Your task to perform on an android device: open app "Messenger Lite" (install if not already installed) Image 0: 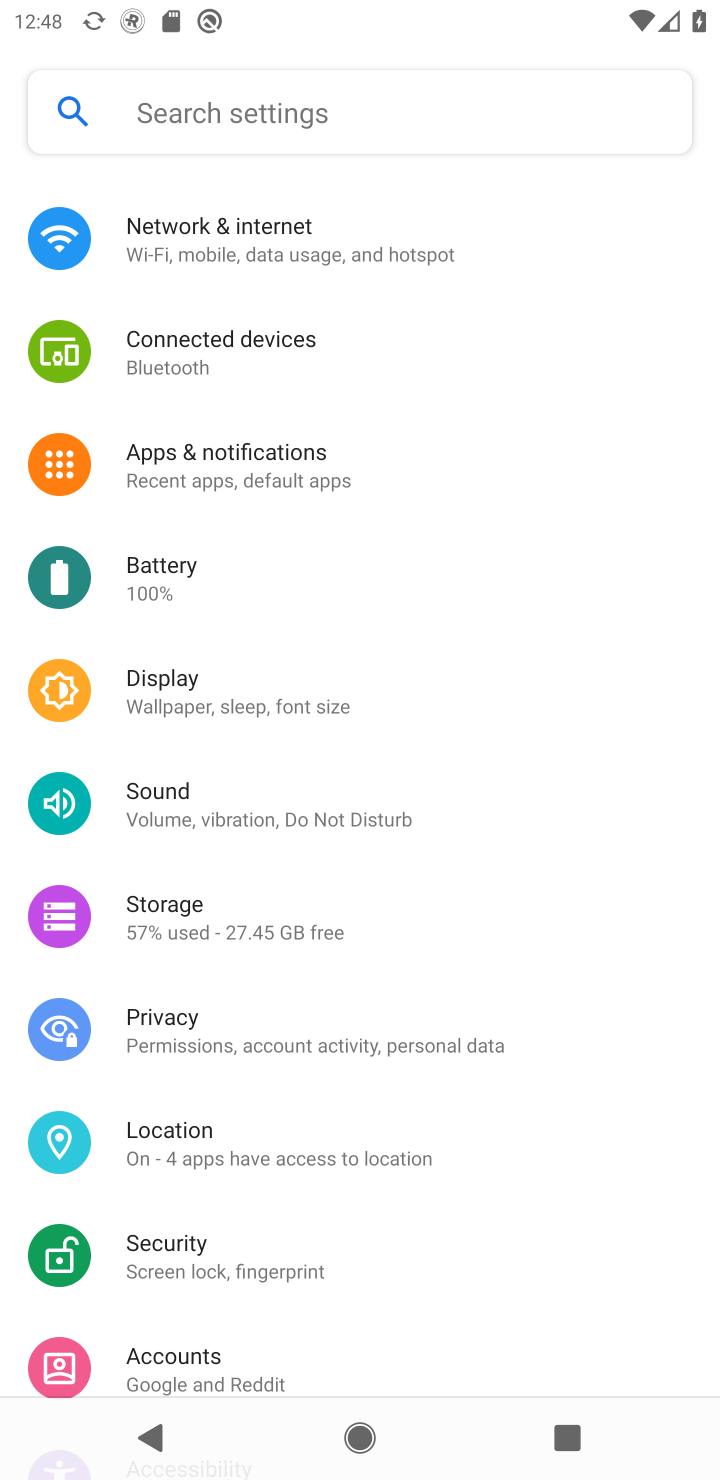
Step 0: press home button
Your task to perform on an android device: open app "Messenger Lite" (install if not already installed) Image 1: 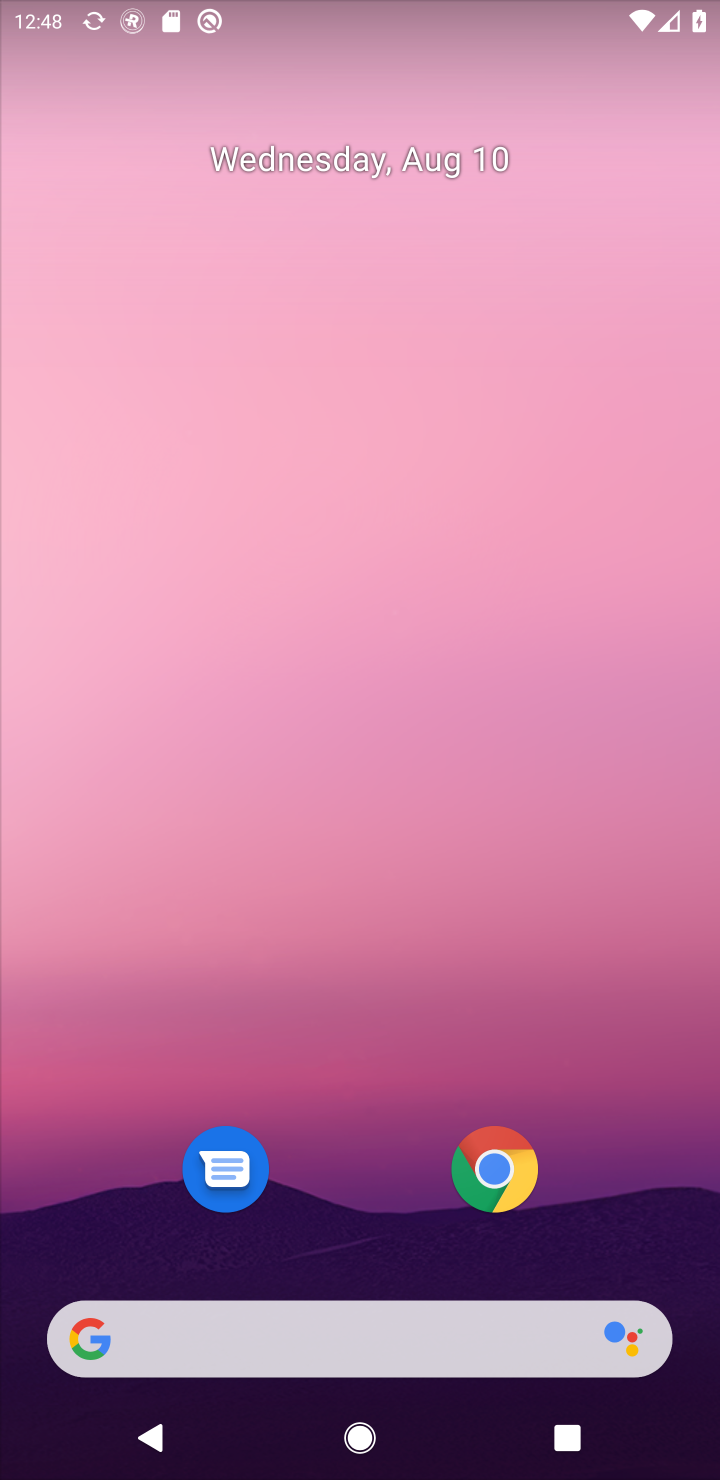
Step 1: press home button
Your task to perform on an android device: open app "Messenger Lite" (install if not already installed) Image 2: 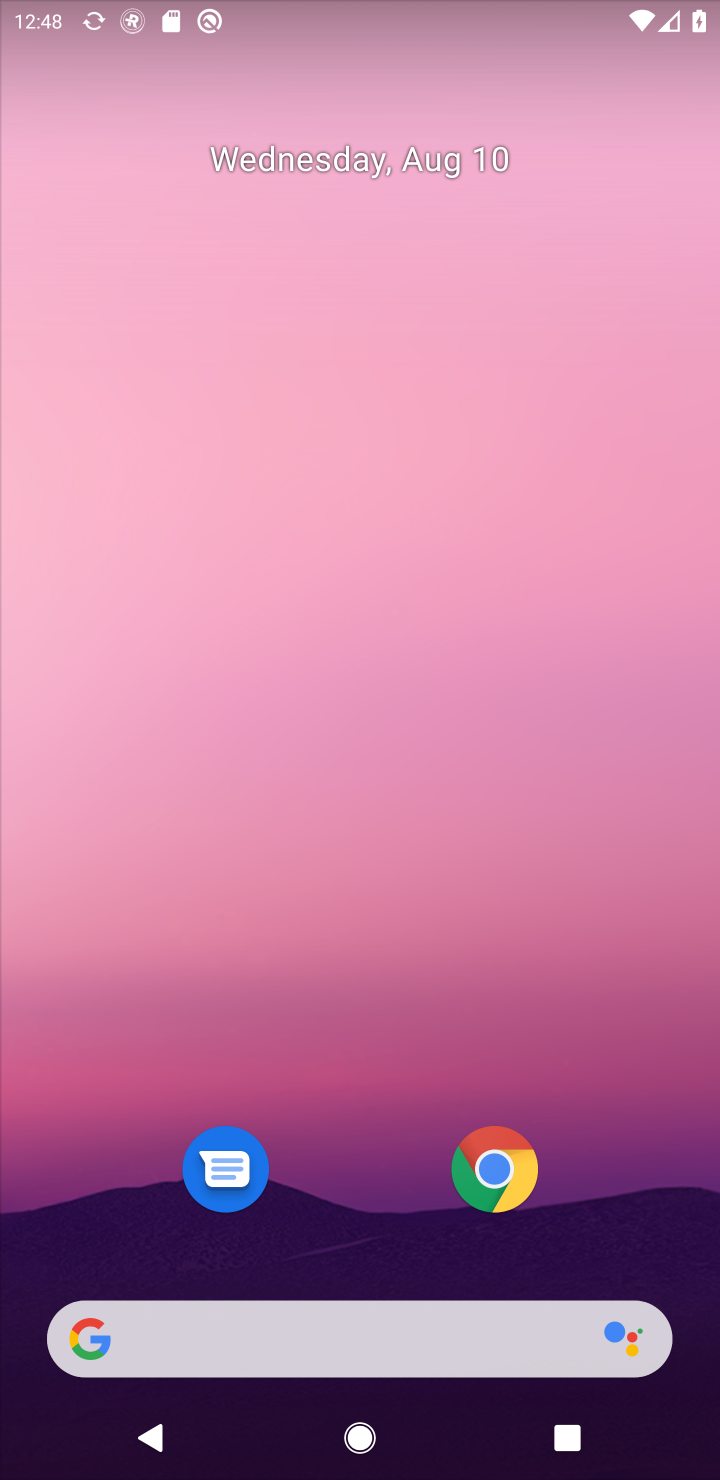
Step 2: drag from (606, 1204) to (629, 189)
Your task to perform on an android device: open app "Messenger Lite" (install if not already installed) Image 3: 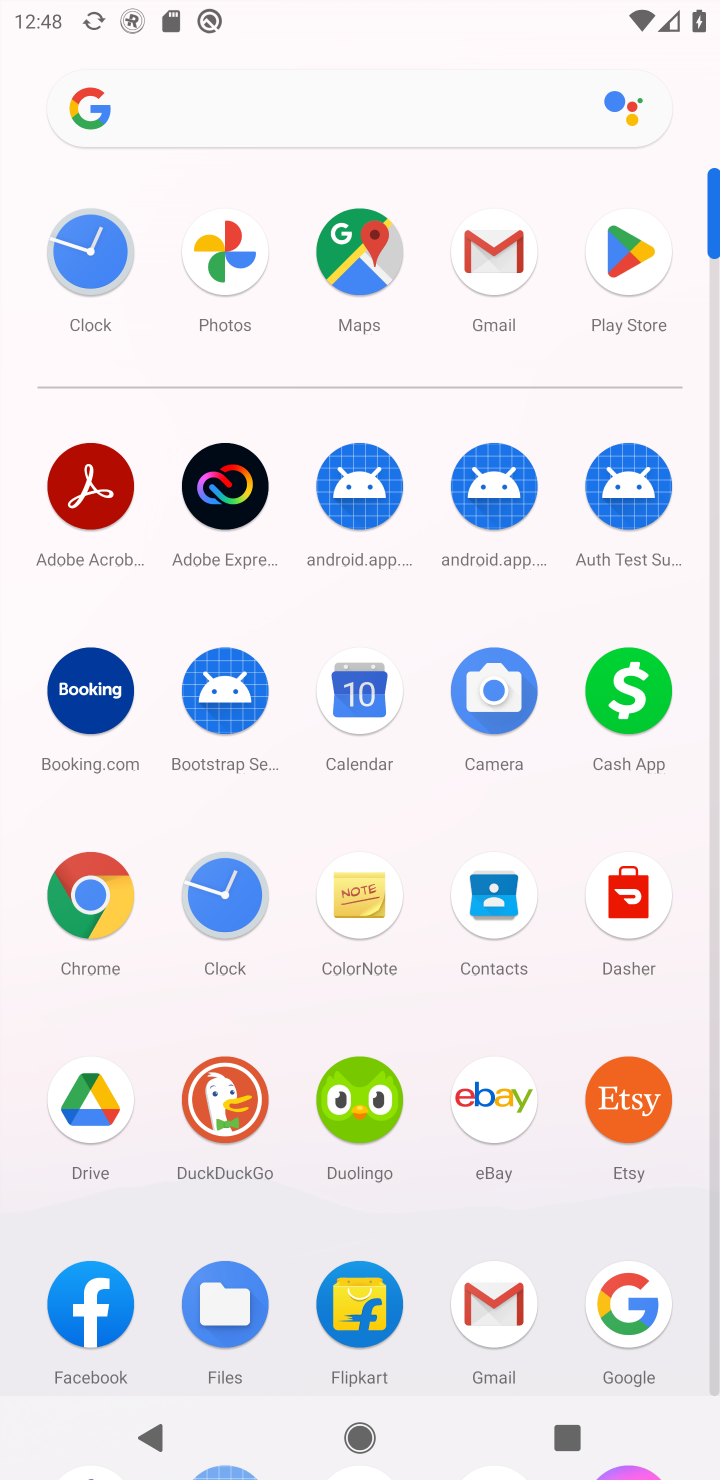
Step 3: click (629, 248)
Your task to perform on an android device: open app "Messenger Lite" (install if not already installed) Image 4: 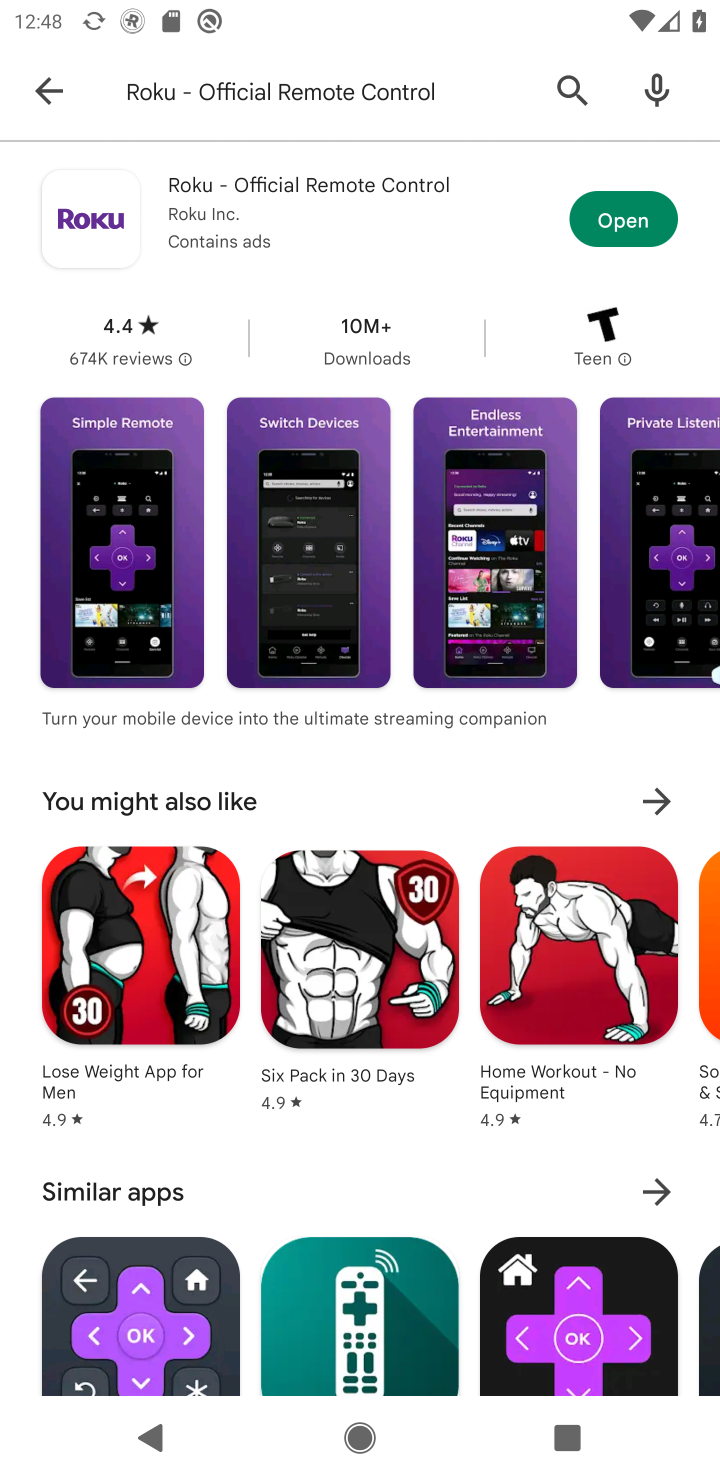
Step 4: click (558, 88)
Your task to perform on an android device: open app "Messenger Lite" (install if not already installed) Image 5: 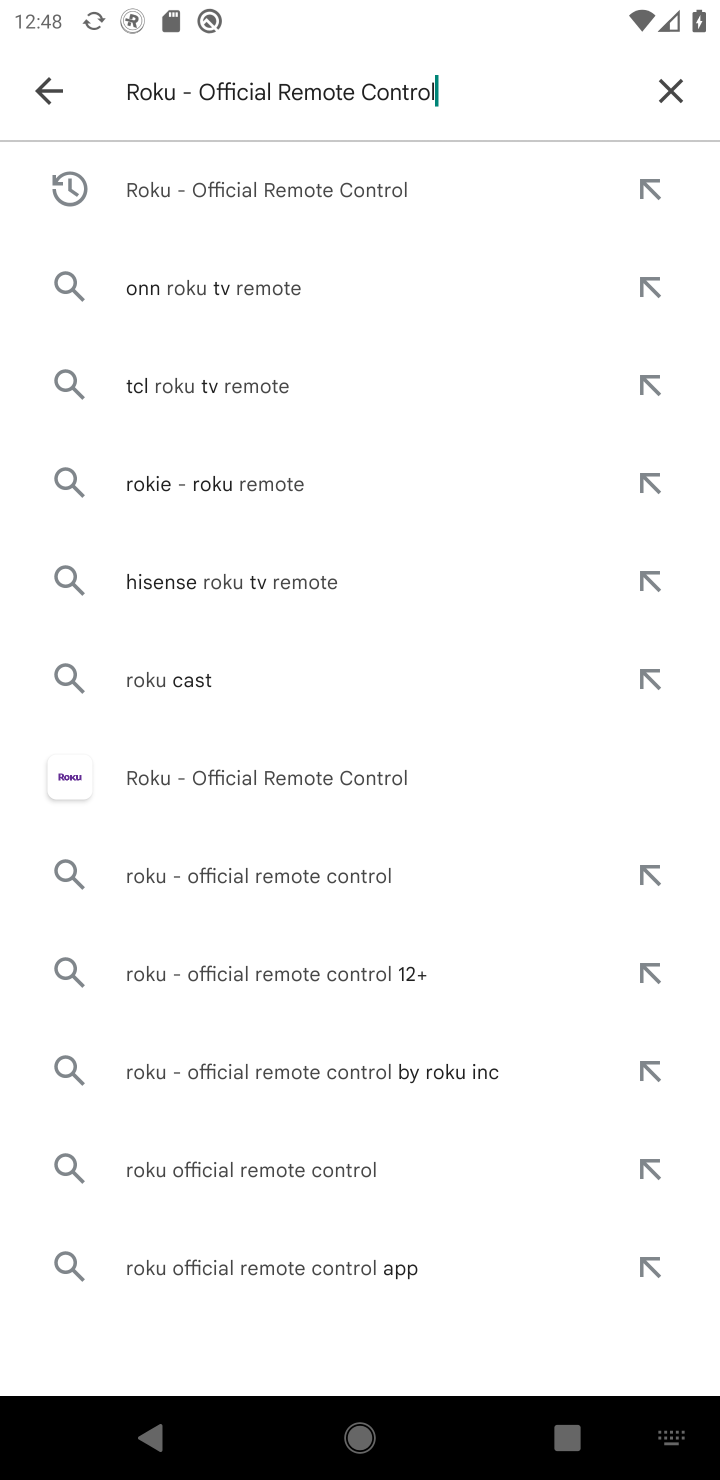
Step 5: click (676, 85)
Your task to perform on an android device: open app "Messenger Lite" (install if not already installed) Image 6: 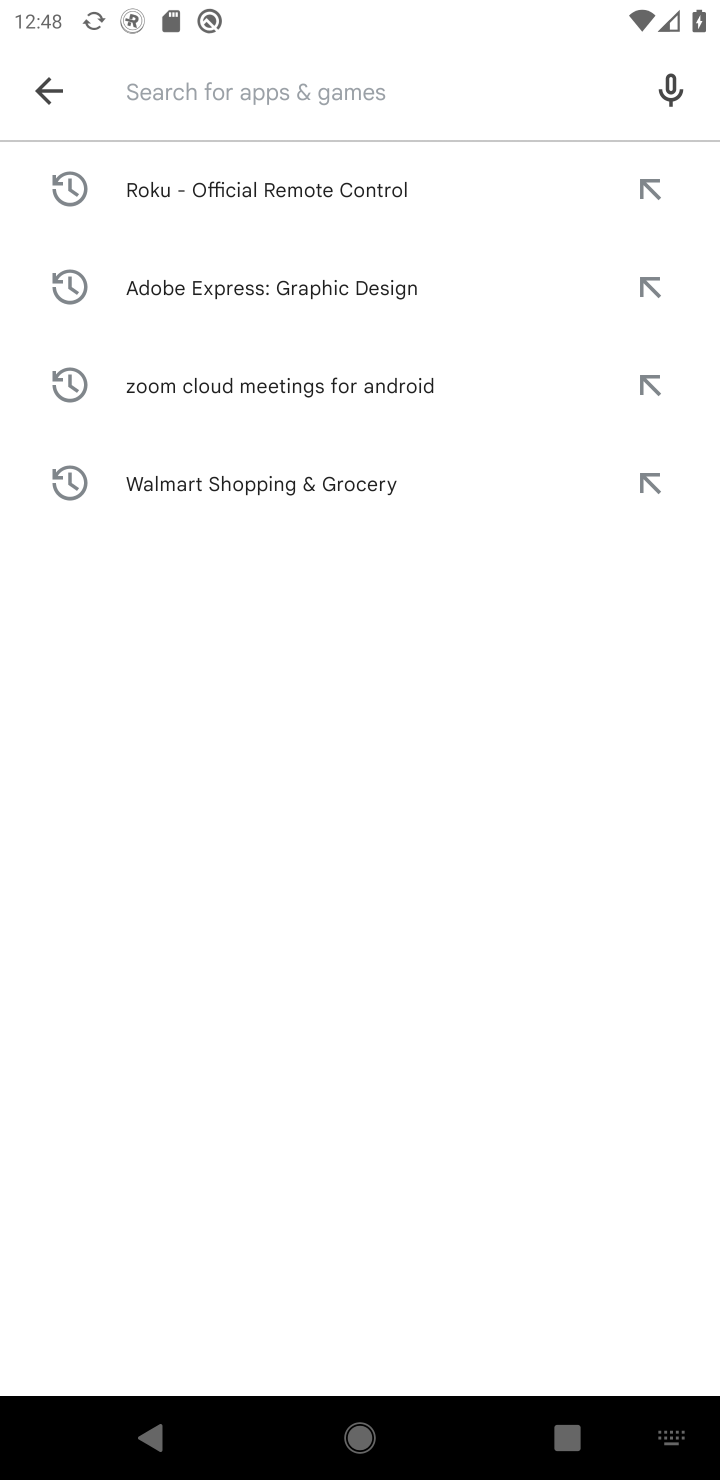
Step 6: press enter
Your task to perform on an android device: open app "Messenger Lite" (install if not already installed) Image 7: 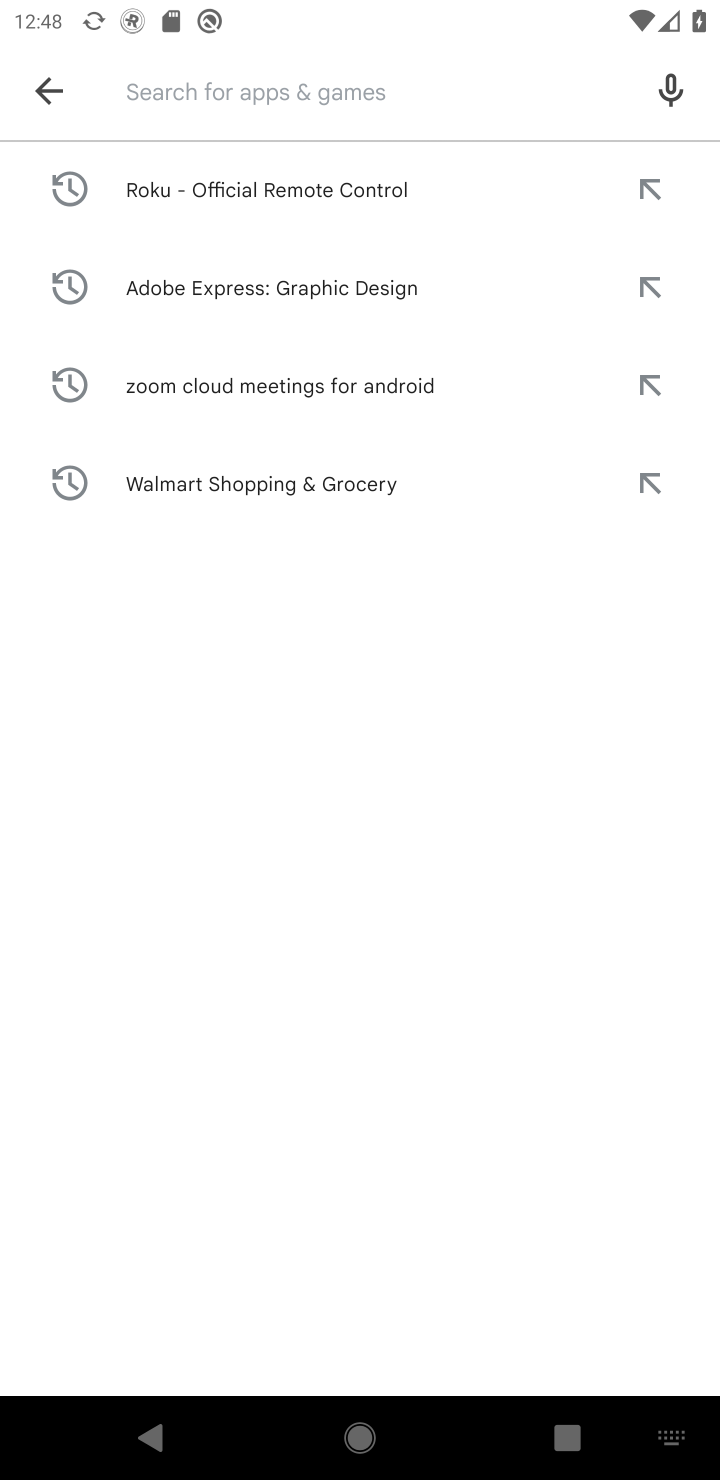
Step 7: type "Messenger Lite"
Your task to perform on an android device: open app "Messenger Lite" (install if not already installed) Image 8: 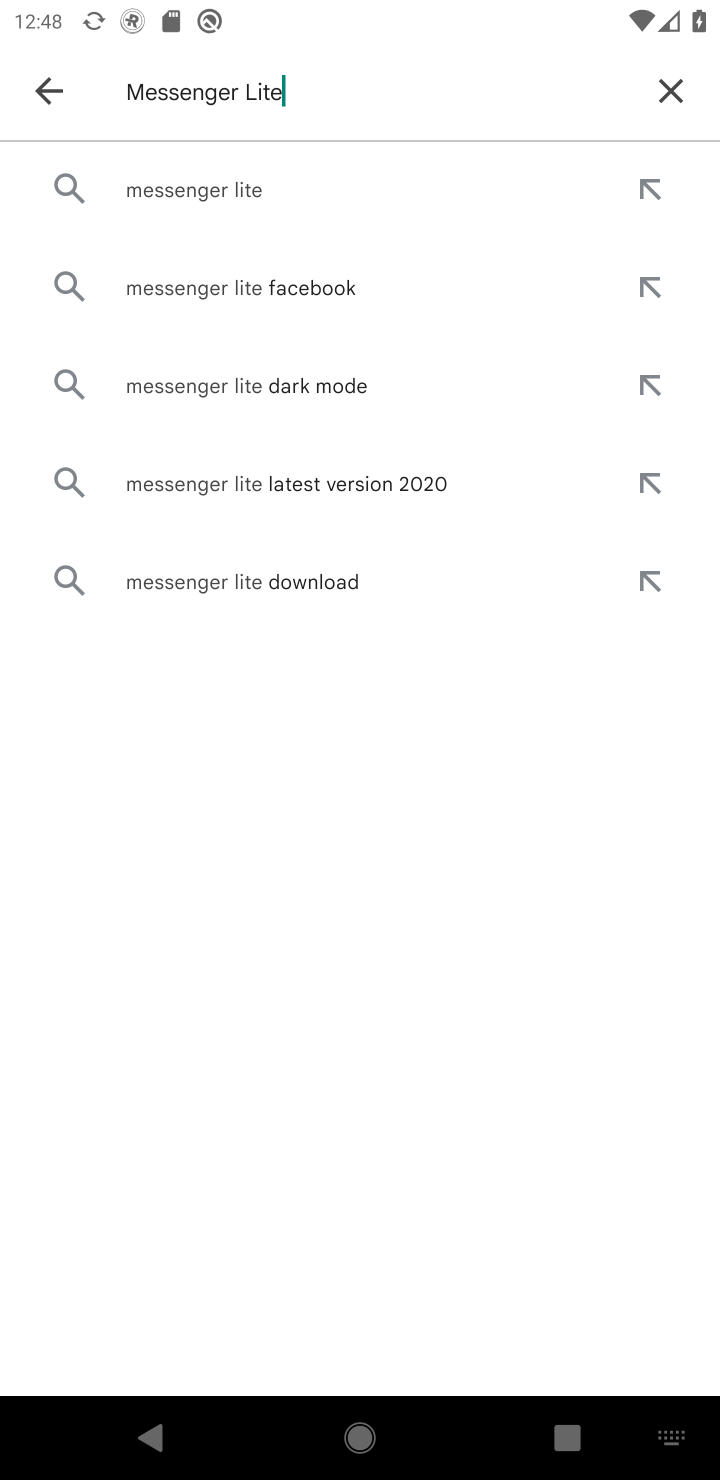
Step 8: click (262, 197)
Your task to perform on an android device: open app "Messenger Lite" (install if not already installed) Image 9: 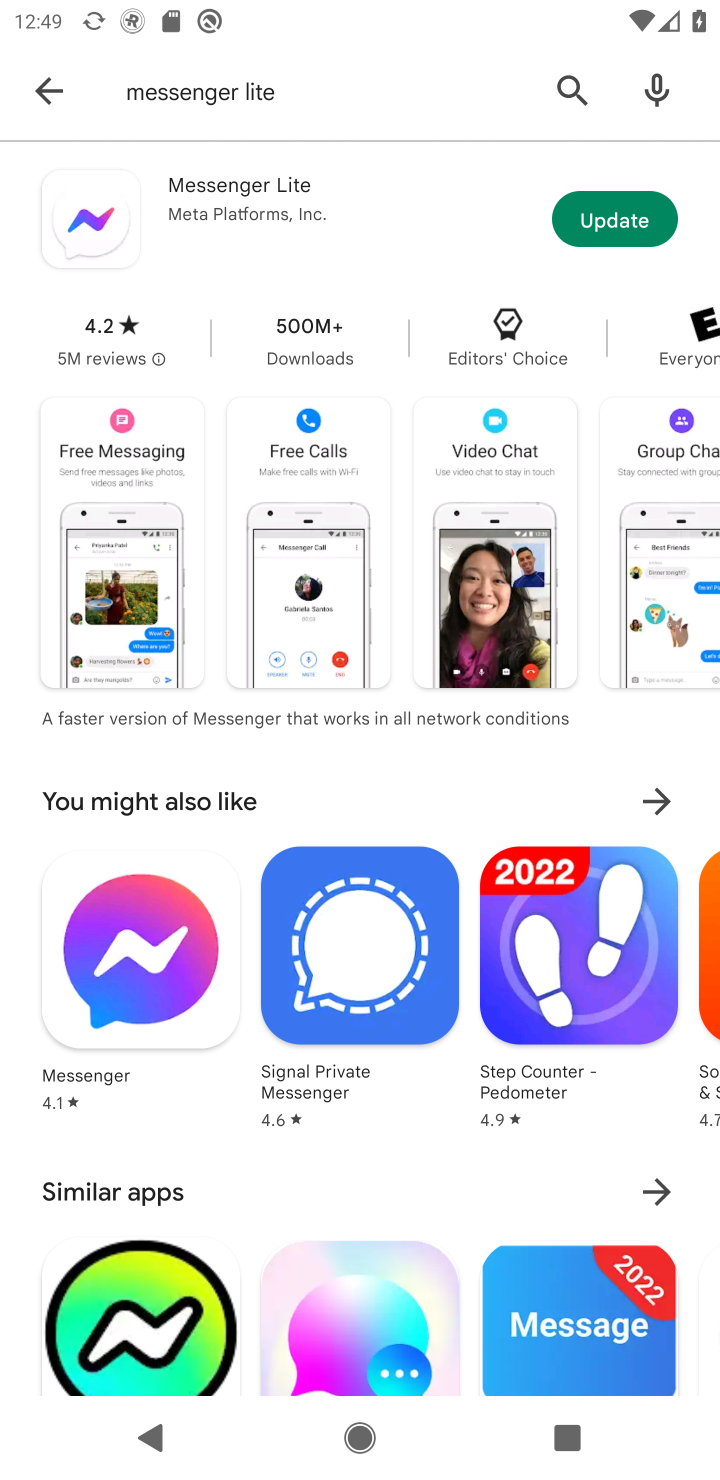
Step 9: task complete